Your task to perform on an android device: Open the calendar and show me this week's events Image 0: 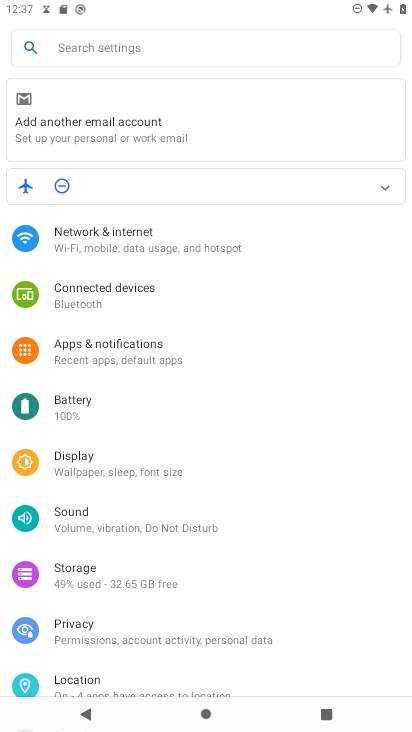
Step 0: press home button
Your task to perform on an android device: Open the calendar and show me this week's events Image 1: 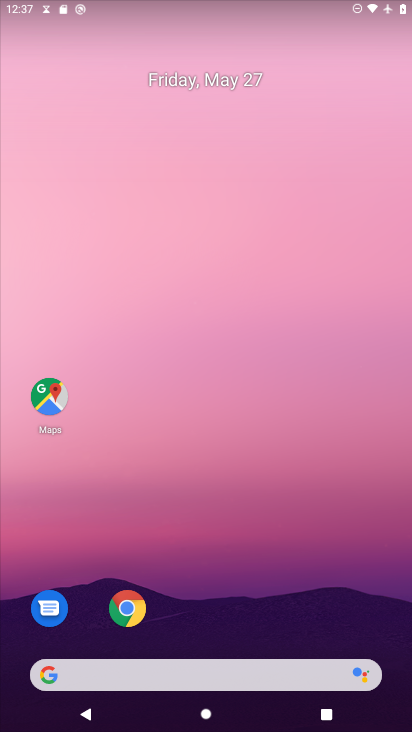
Step 1: drag from (106, 668) to (269, 73)
Your task to perform on an android device: Open the calendar and show me this week's events Image 2: 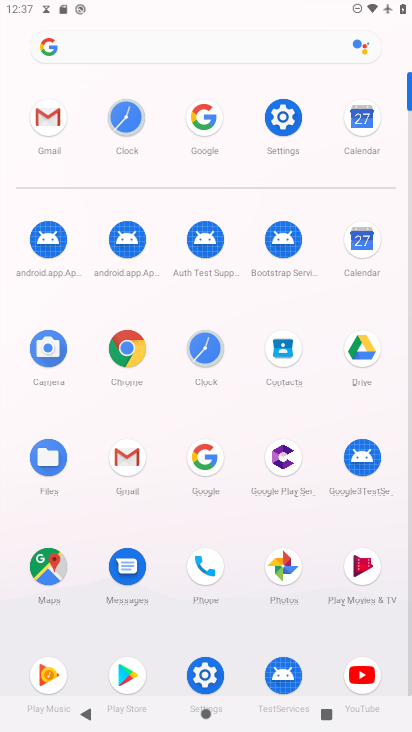
Step 2: click (359, 236)
Your task to perform on an android device: Open the calendar and show me this week's events Image 3: 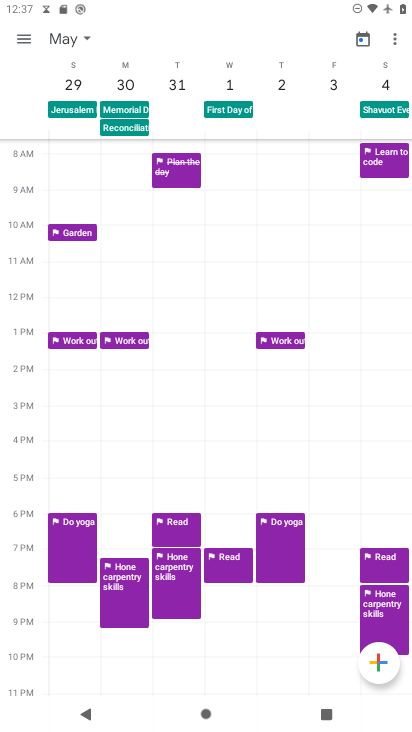
Step 3: click (68, 39)
Your task to perform on an android device: Open the calendar and show me this week's events Image 4: 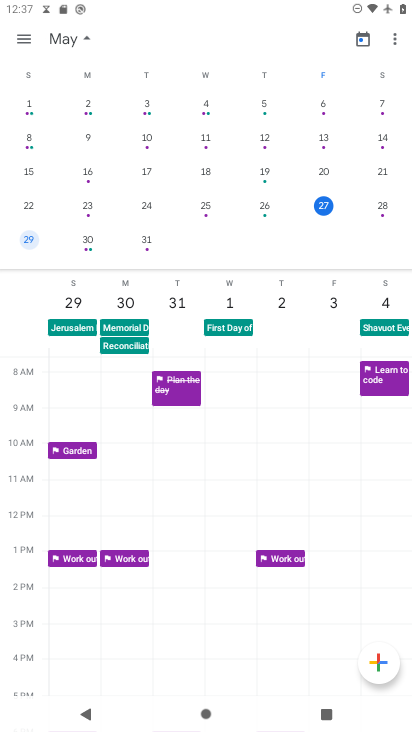
Step 4: click (322, 204)
Your task to perform on an android device: Open the calendar and show me this week's events Image 5: 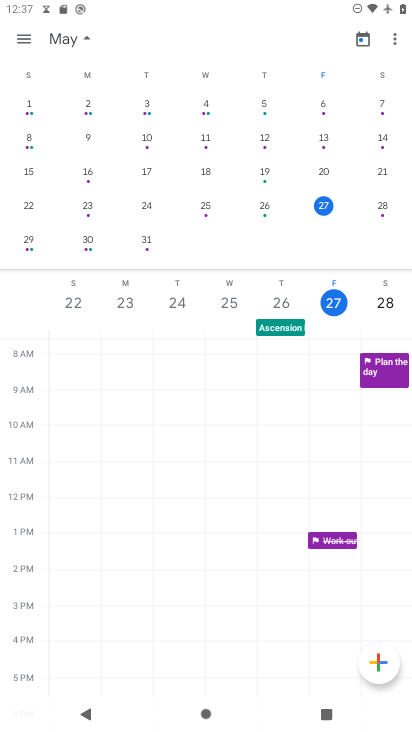
Step 5: click (22, 41)
Your task to perform on an android device: Open the calendar and show me this week's events Image 6: 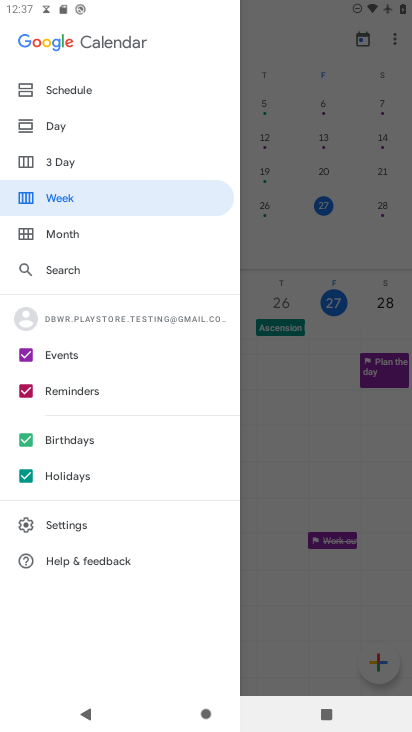
Step 6: click (71, 193)
Your task to perform on an android device: Open the calendar and show me this week's events Image 7: 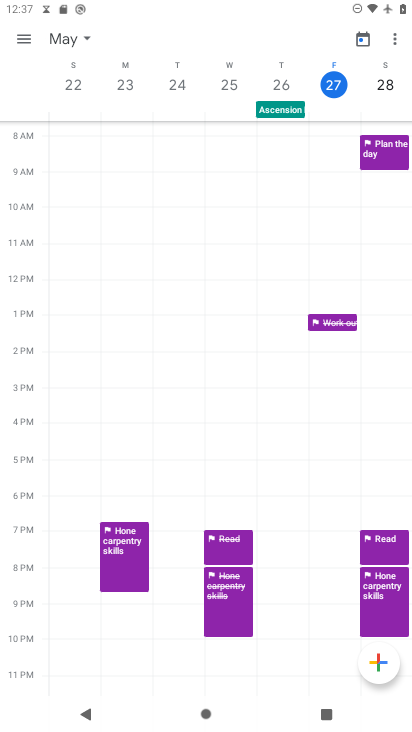
Step 7: click (14, 38)
Your task to perform on an android device: Open the calendar and show me this week's events Image 8: 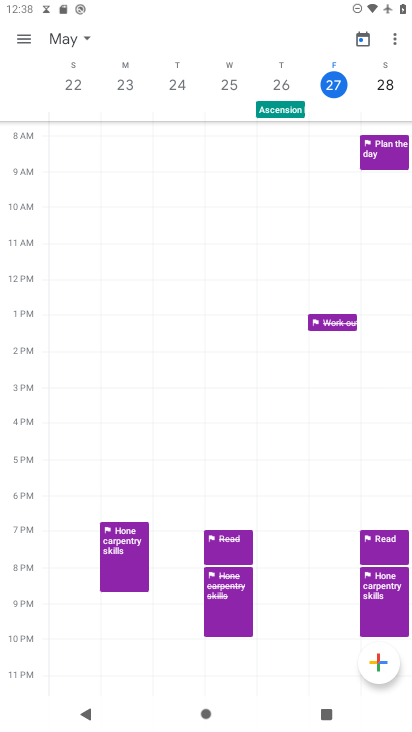
Step 8: click (26, 40)
Your task to perform on an android device: Open the calendar and show me this week's events Image 9: 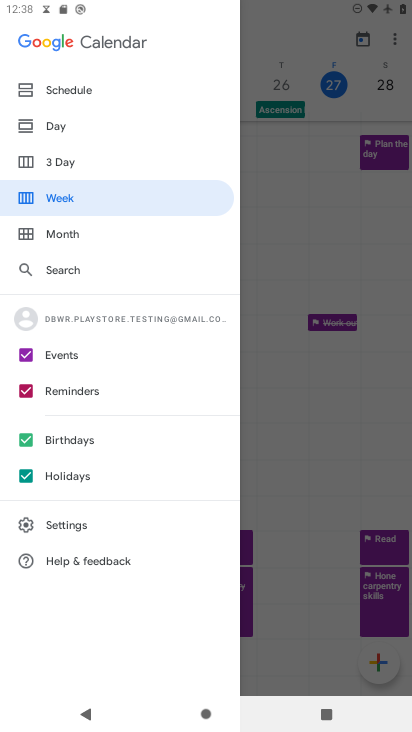
Step 9: click (74, 86)
Your task to perform on an android device: Open the calendar and show me this week's events Image 10: 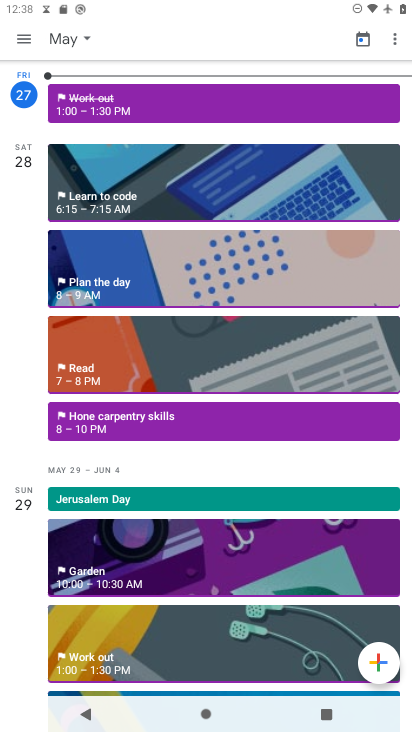
Step 10: click (138, 113)
Your task to perform on an android device: Open the calendar and show me this week's events Image 11: 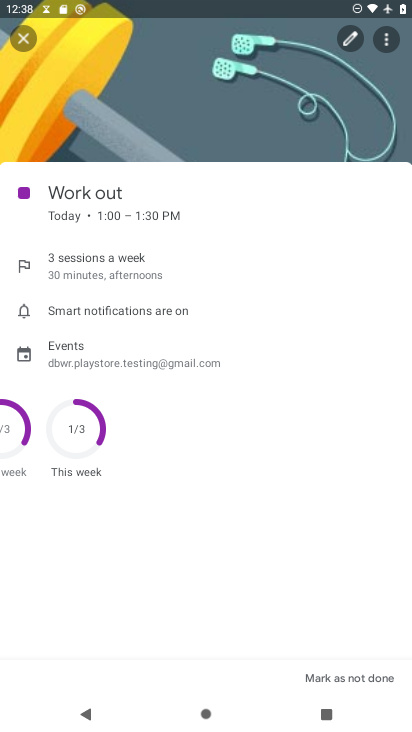
Step 11: task complete